Your task to perform on an android device: Open eBay Image 0: 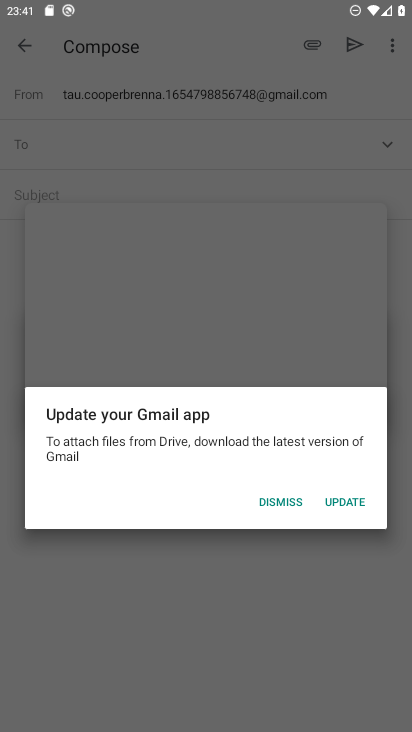
Step 0: press home button
Your task to perform on an android device: Open eBay Image 1: 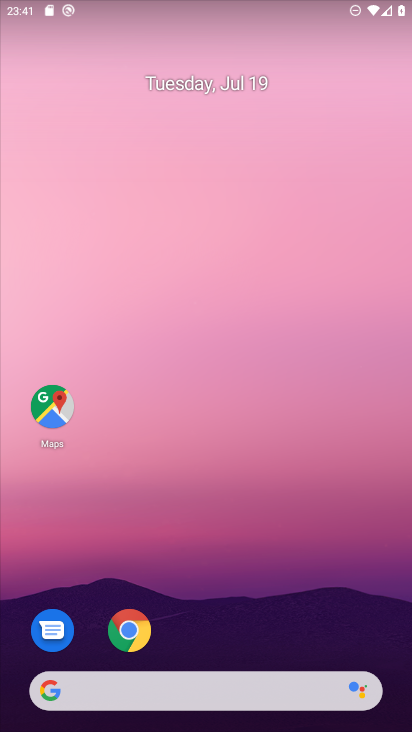
Step 1: click (146, 620)
Your task to perform on an android device: Open eBay Image 2: 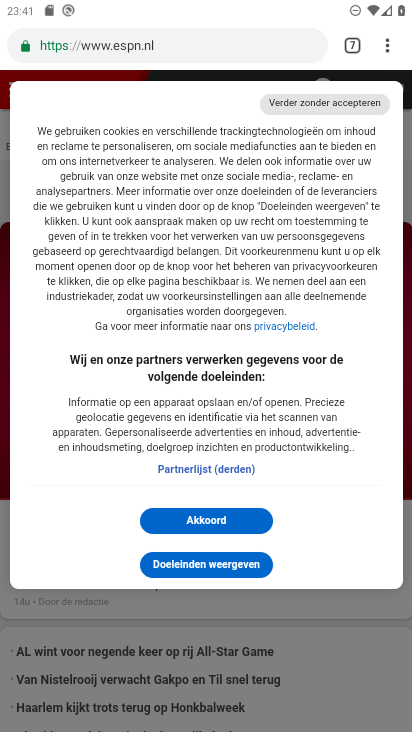
Step 2: click (351, 50)
Your task to perform on an android device: Open eBay Image 3: 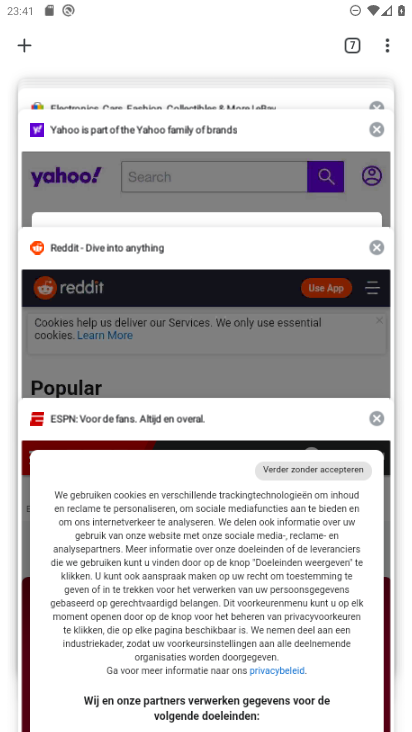
Step 3: click (24, 41)
Your task to perform on an android device: Open eBay Image 4: 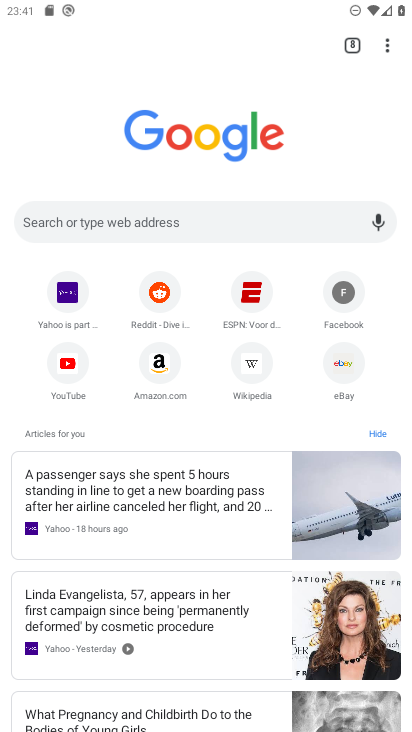
Step 4: click (353, 365)
Your task to perform on an android device: Open eBay Image 5: 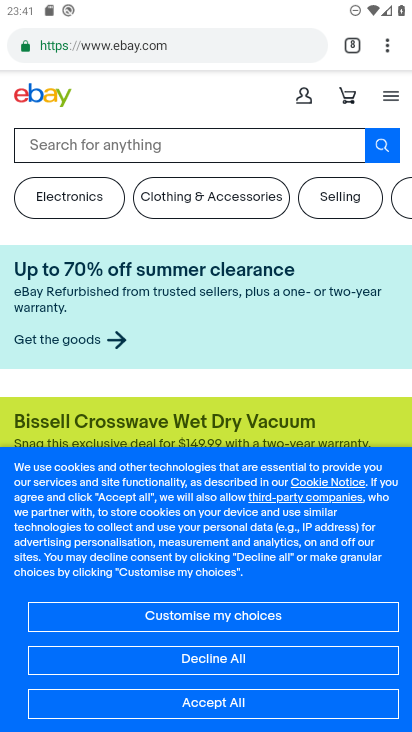
Step 5: task complete